Your task to perform on an android device: add a label to a message in the gmail app Image 0: 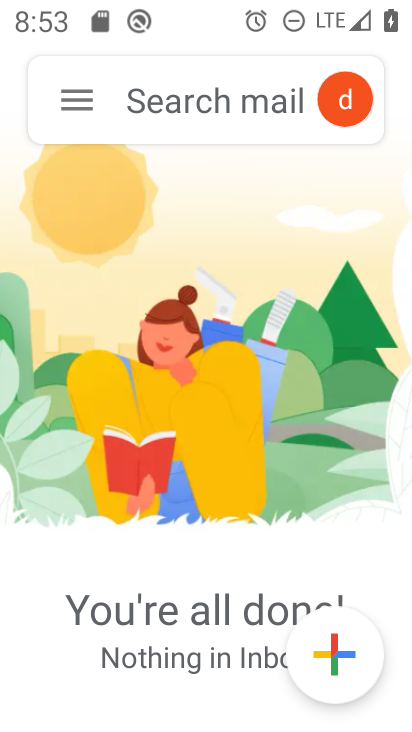
Step 0: click (69, 96)
Your task to perform on an android device: add a label to a message in the gmail app Image 1: 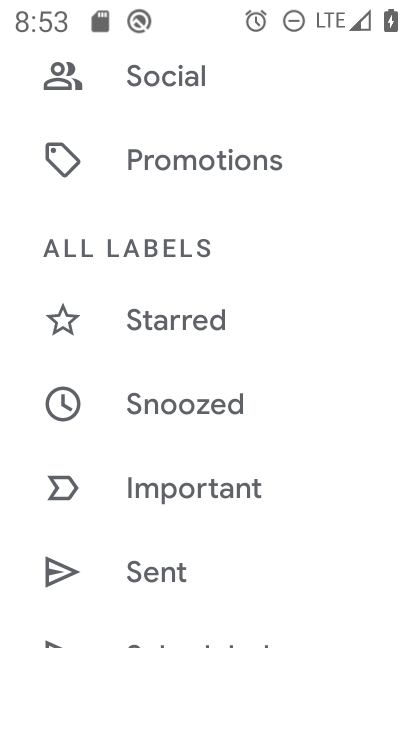
Step 1: drag from (169, 499) to (239, 138)
Your task to perform on an android device: add a label to a message in the gmail app Image 2: 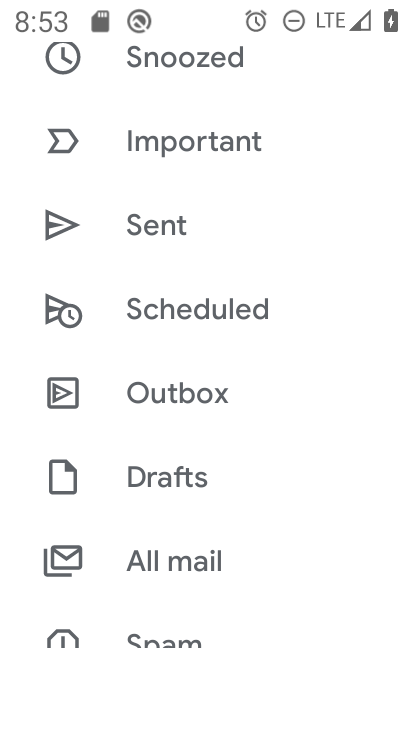
Step 2: click (180, 563)
Your task to perform on an android device: add a label to a message in the gmail app Image 3: 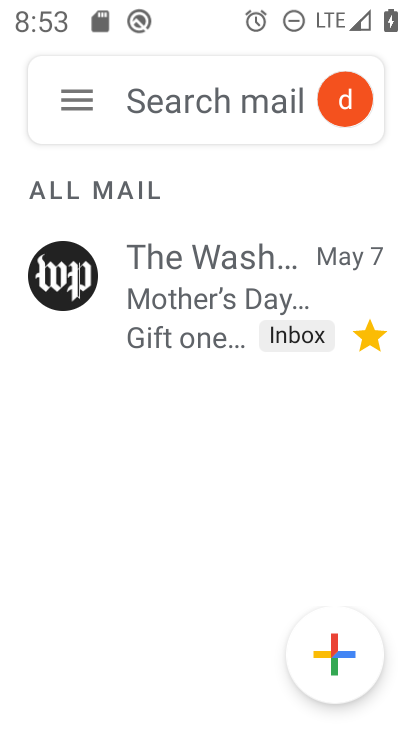
Step 3: click (80, 278)
Your task to perform on an android device: add a label to a message in the gmail app Image 4: 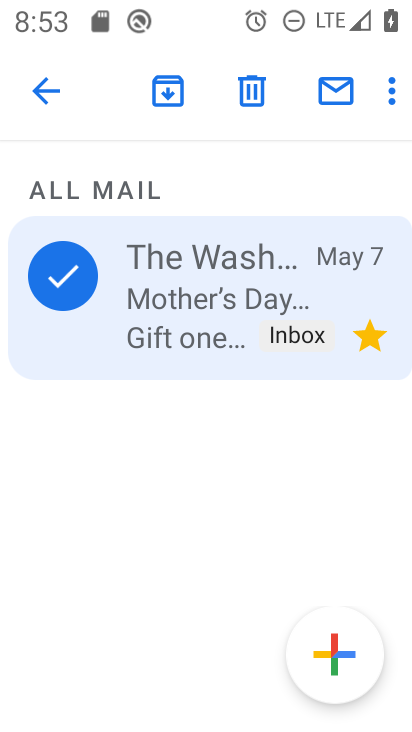
Step 4: click (384, 99)
Your task to perform on an android device: add a label to a message in the gmail app Image 5: 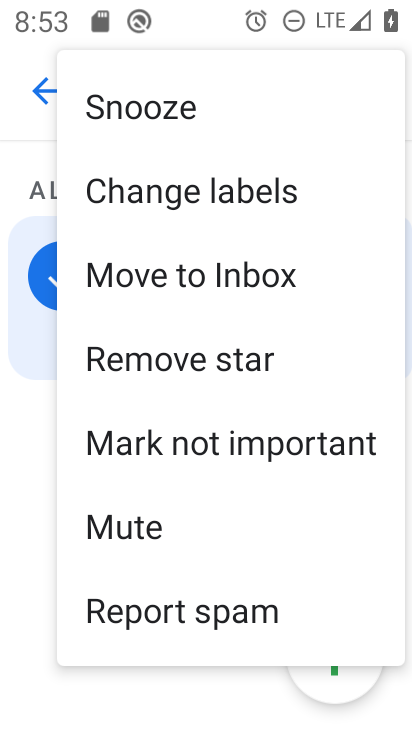
Step 5: click (286, 209)
Your task to perform on an android device: add a label to a message in the gmail app Image 6: 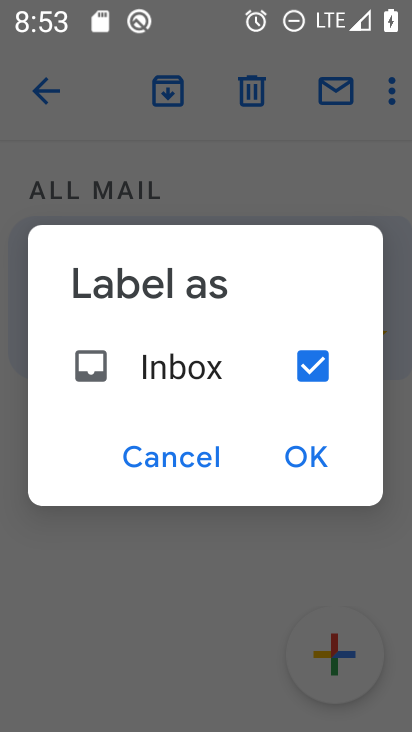
Step 6: click (323, 358)
Your task to perform on an android device: add a label to a message in the gmail app Image 7: 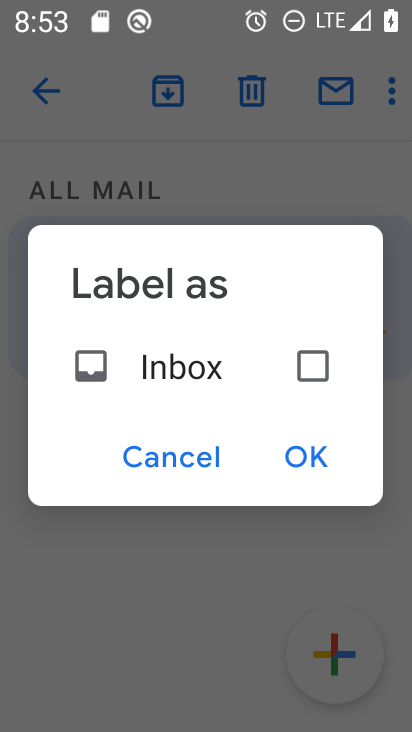
Step 7: click (303, 452)
Your task to perform on an android device: add a label to a message in the gmail app Image 8: 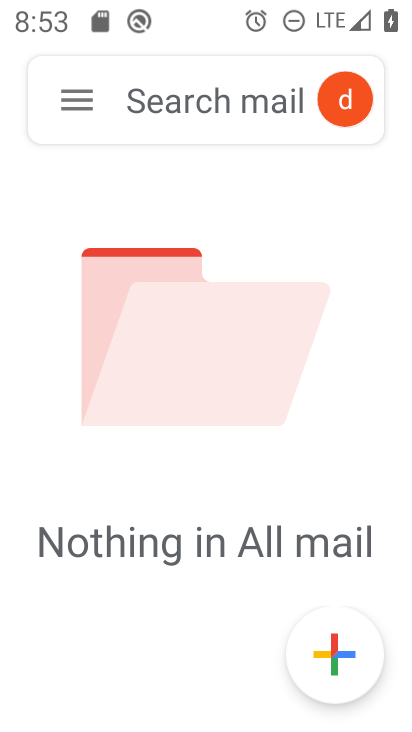
Step 8: task complete